Your task to perform on an android device: Open the phone app and click the voicemail tab. Image 0: 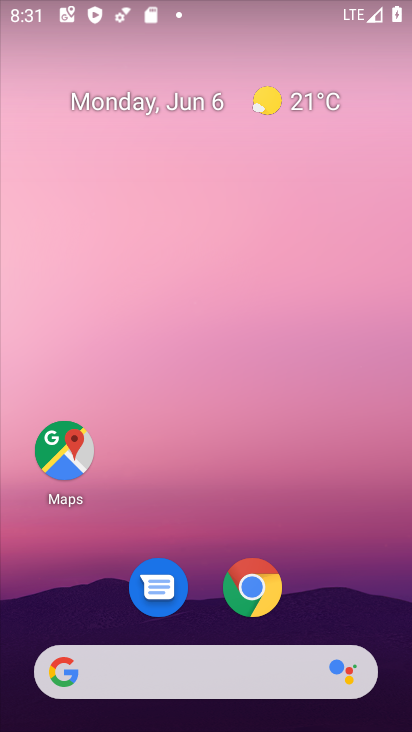
Step 0: drag from (167, 501) to (239, 11)
Your task to perform on an android device: Open the phone app and click the voicemail tab. Image 1: 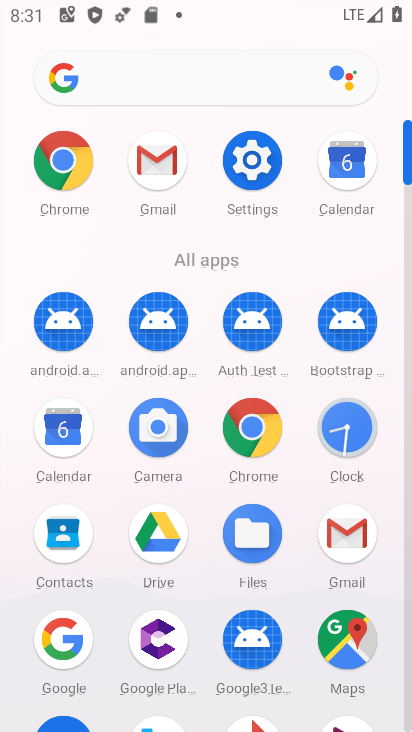
Step 1: drag from (270, 367) to (270, 7)
Your task to perform on an android device: Open the phone app and click the voicemail tab. Image 2: 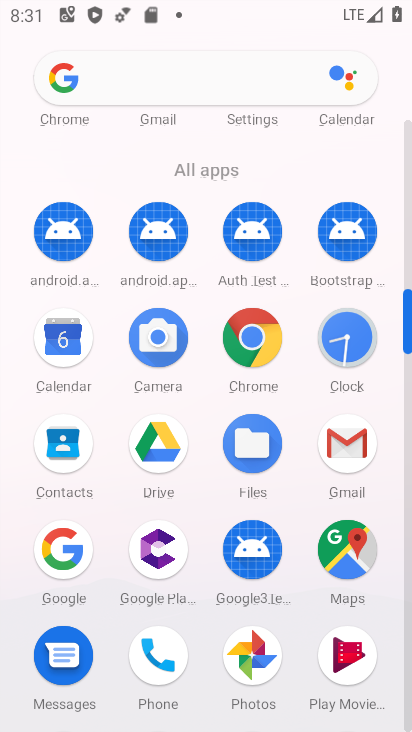
Step 2: click (169, 652)
Your task to perform on an android device: Open the phone app and click the voicemail tab. Image 3: 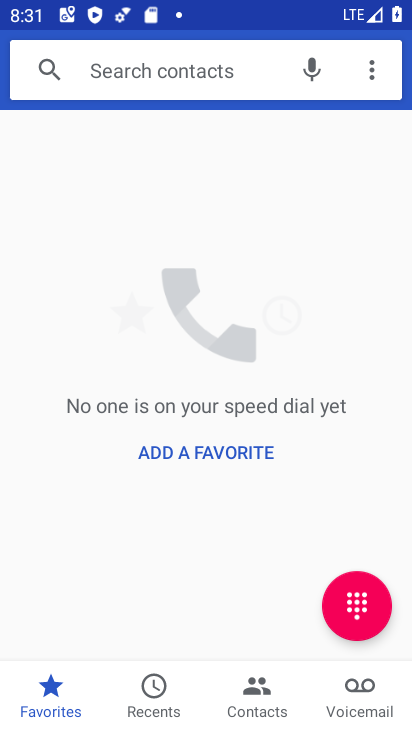
Step 3: click (359, 686)
Your task to perform on an android device: Open the phone app and click the voicemail tab. Image 4: 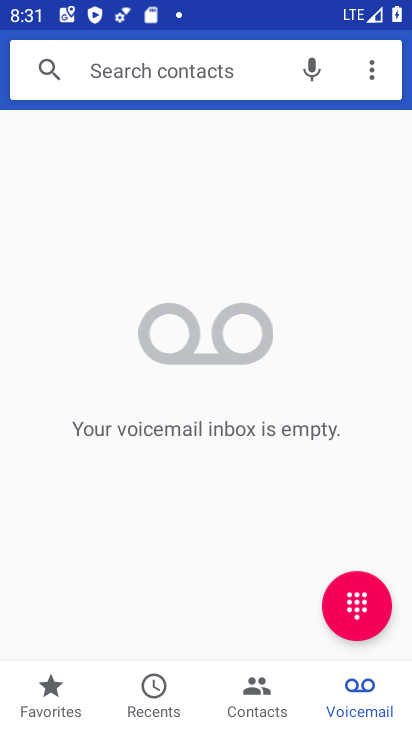
Step 4: task complete